Your task to perform on an android device: delete the emails in spam in the gmail app Image 0: 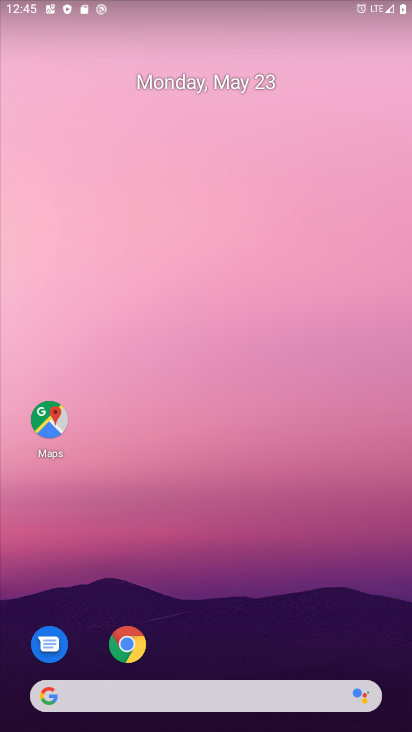
Step 0: drag from (365, 606) to (276, 128)
Your task to perform on an android device: delete the emails in spam in the gmail app Image 1: 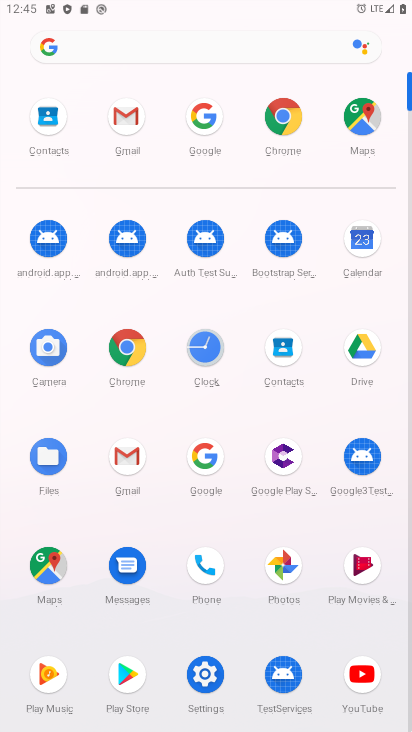
Step 1: click (134, 456)
Your task to perform on an android device: delete the emails in spam in the gmail app Image 2: 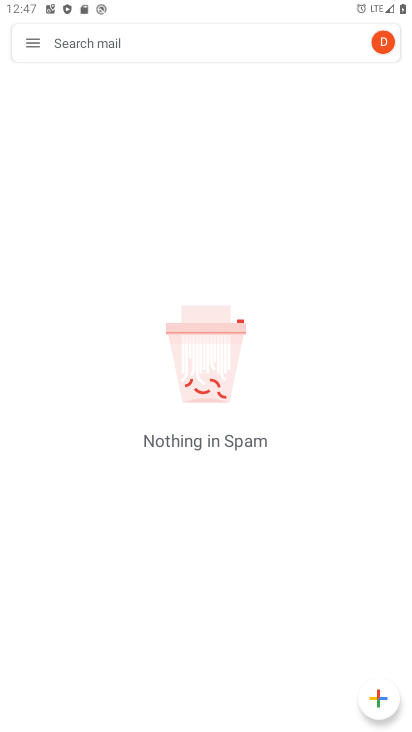
Step 2: click (33, 43)
Your task to perform on an android device: delete the emails in spam in the gmail app Image 3: 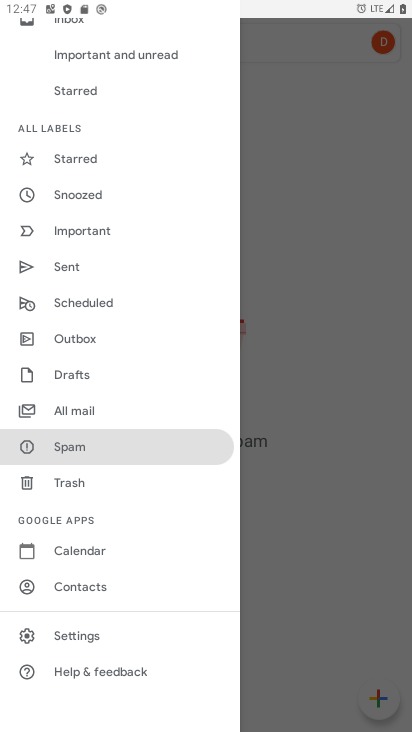
Step 3: click (134, 449)
Your task to perform on an android device: delete the emails in spam in the gmail app Image 4: 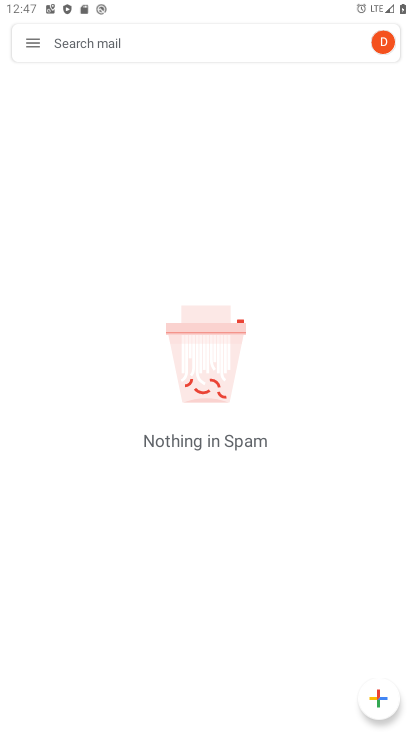
Step 4: task complete